Your task to perform on an android device: open the mobile data screen to see how much data has been used Image 0: 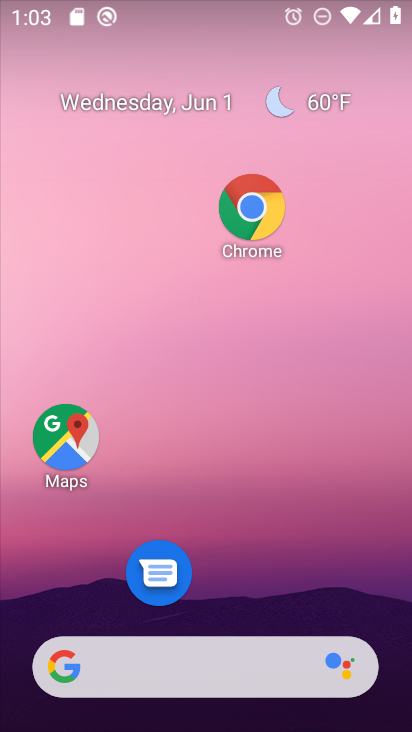
Step 0: drag from (212, 603) to (233, 185)
Your task to perform on an android device: open the mobile data screen to see how much data has been used Image 1: 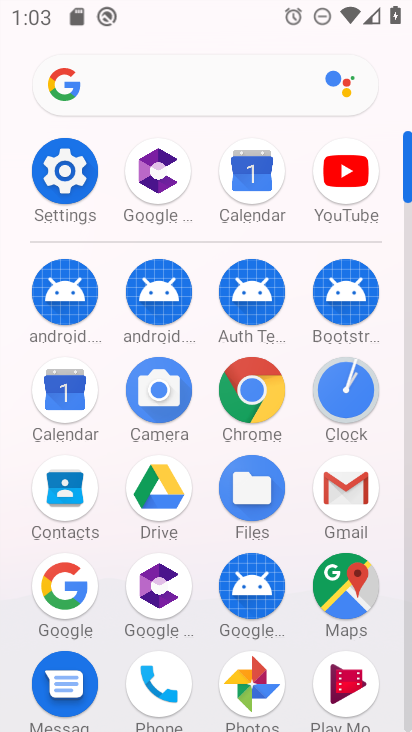
Step 1: click (79, 183)
Your task to perform on an android device: open the mobile data screen to see how much data has been used Image 2: 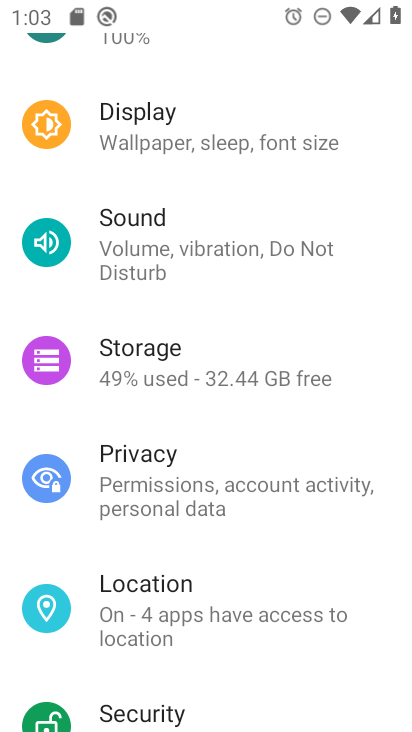
Step 2: drag from (191, 159) to (196, 561)
Your task to perform on an android device: open the mobile data screen to see how much data has been used Image 3: 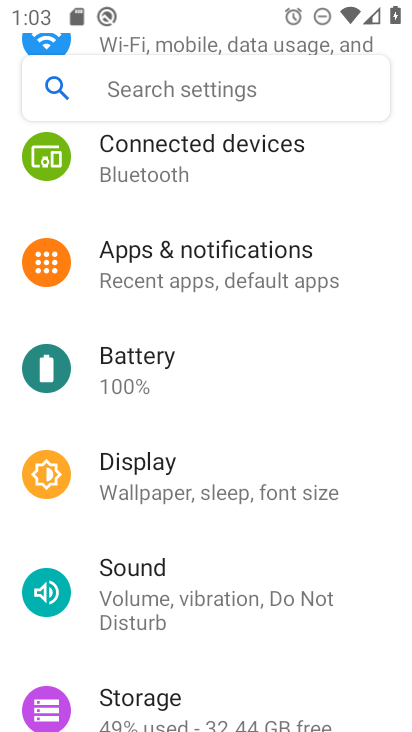
Step 3: drag from (217, 219) to (240, 544)
Your task to perform on an android device: open the mobile data screen to see how much data has been used Image 4: 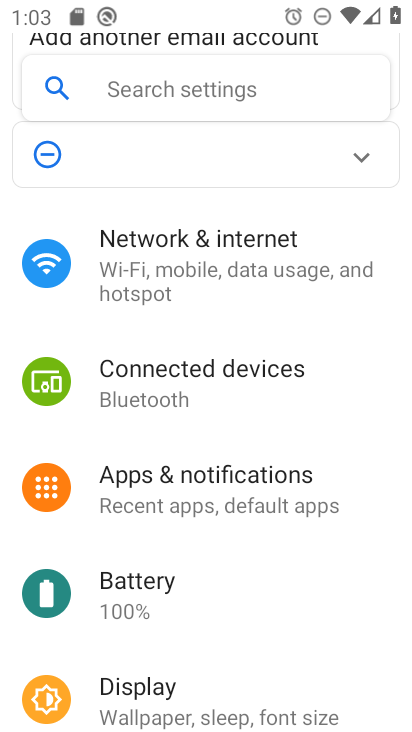
Step 4: click (213, 266)
Your task to perform on an android device: open the mobile data screen to see how much data has been used Image 5: 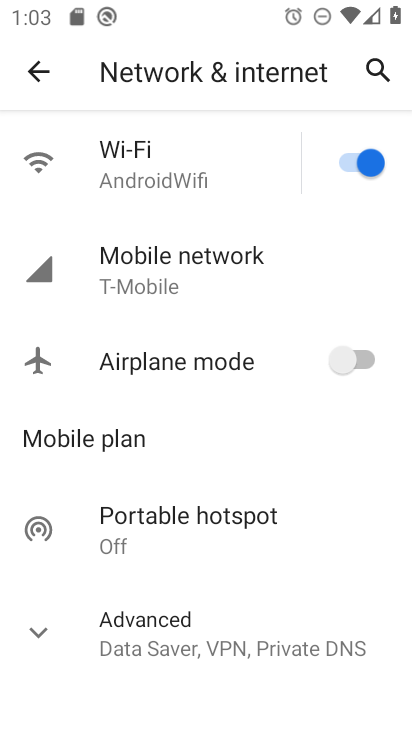
Step 5: click (213, 266)
Your task to perform on an android device: open the mobile data screen to see how much data has been used Image 6: 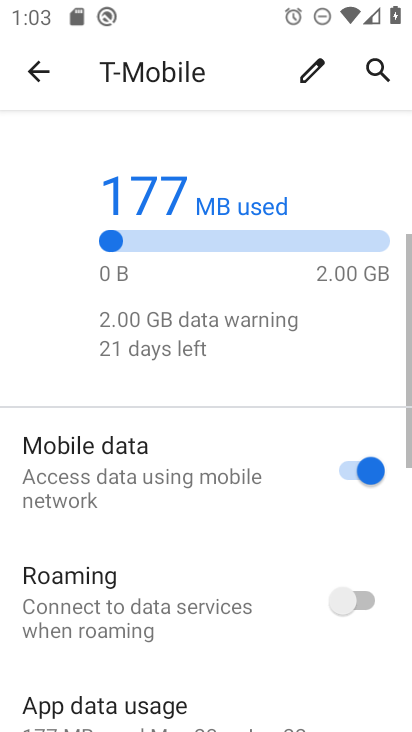
Step 6: drag from (220, 600) to (237, 336)
Your task to perform on an android device: open the mobile data screen to see how much data has been used Image 7: 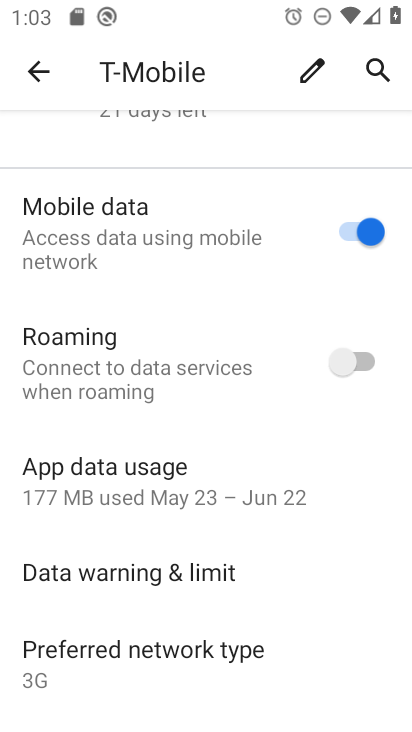
Step 7: click (195, 474)
Your task to perform on an android device: open the mobile data screen to see how much data has been used Image 8: 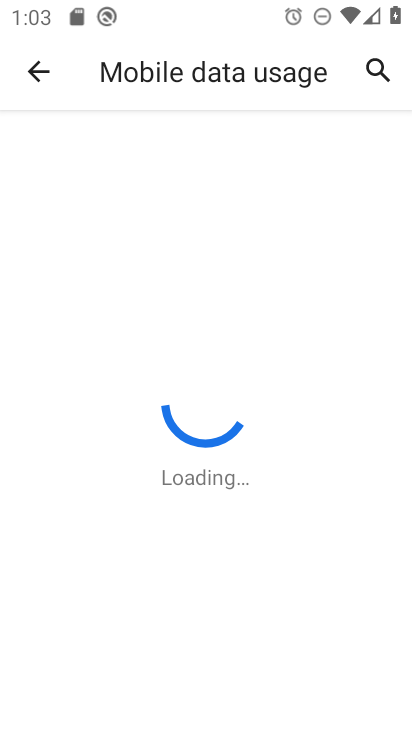
Step 8: task complete